Your task to perform on an android device: open chrome privacy settings Image 0: 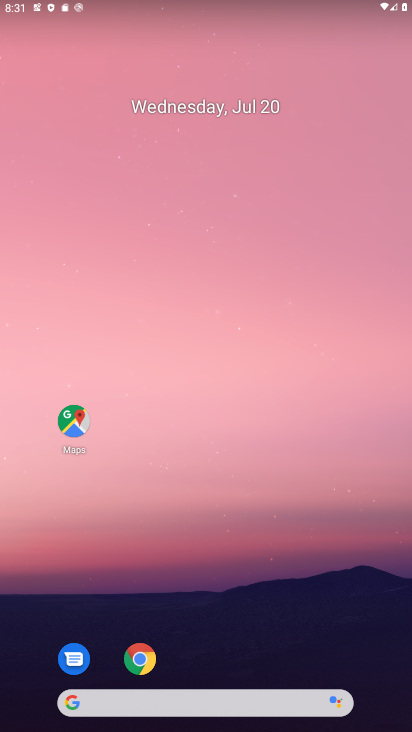
Step 0: drag from (282, 610) to (363, 96)
Your task to perform on an android device: open chrome privacy settings Image 1: 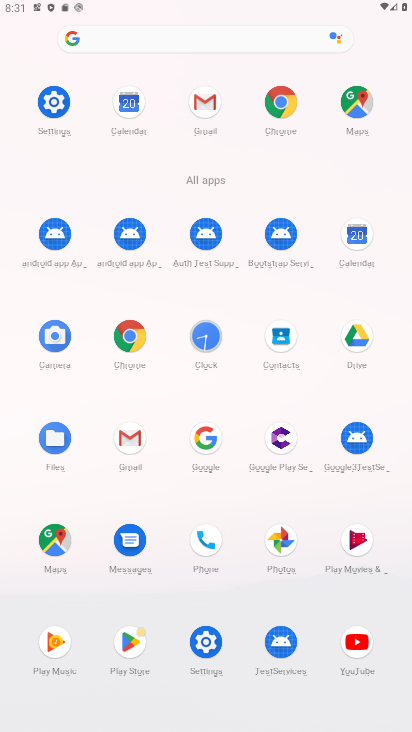
Step 1: click (135, 330)
Your task to perform on an android device: open chrome privacy settings Image 2: 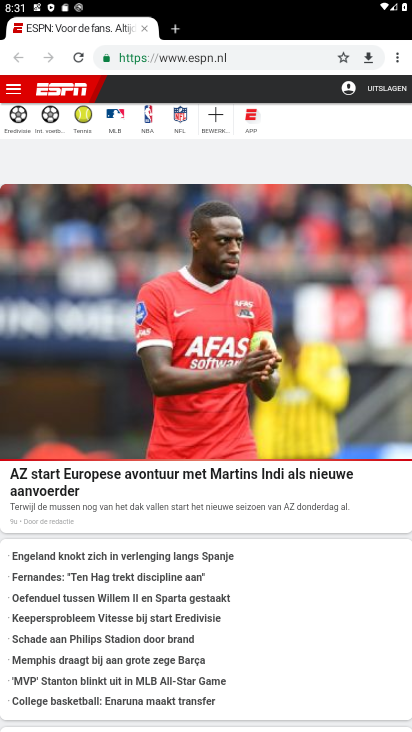
Step 2: drag from (399, 51) to (273, 375)
Your task to perform on an android device: open chrome privacy settings Image 3: 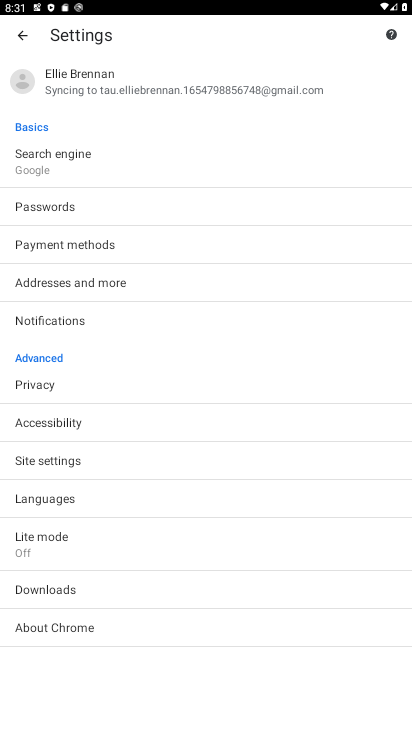
Step 3: click (39, 384)
Your task to perform on an android device: open chrome privacy settings Image 4: 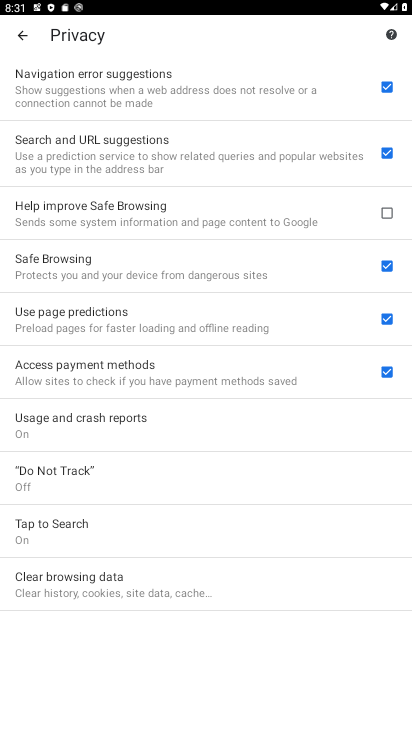
Step 4: task complete